Your task to perform on an android device: Check the news Image 0: 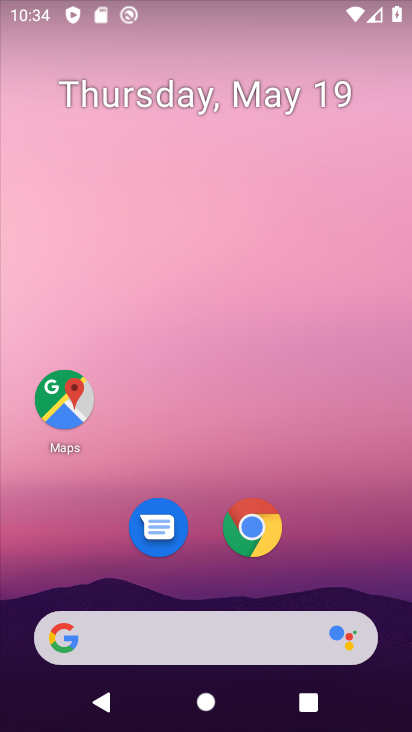
Step 0: click (201, 623)
Your task to perform on an android device: Check the news Image 1: 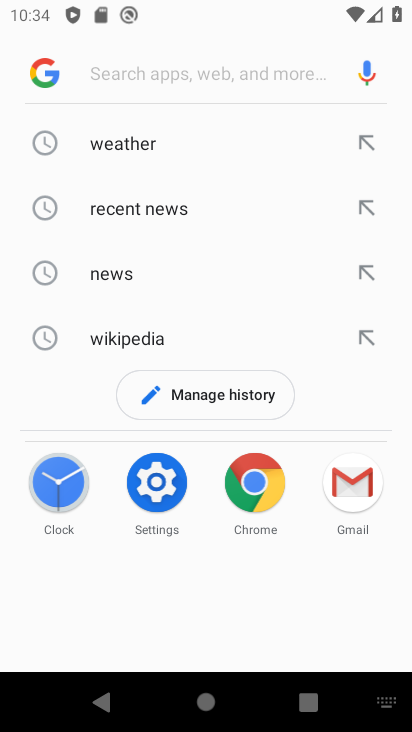
Step 1: click (142, 271)
Your task to perform on an android device: Check the news Image 2: 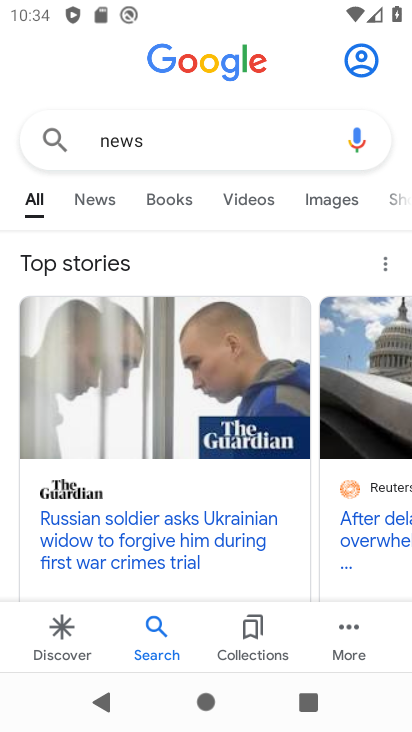
Step 2: task complete